Your task to perform on an android device: Open the stopwatch Image 0: 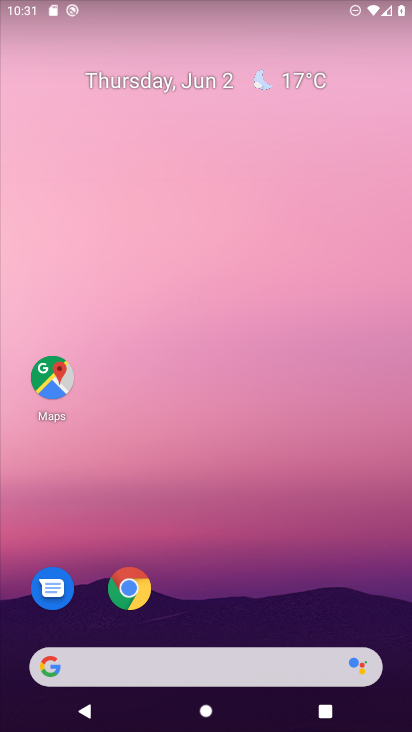
Step 0: drag from (231, 628) to (254, 433)
Your task to perform on an android device: Open the stopwatch Image 1: 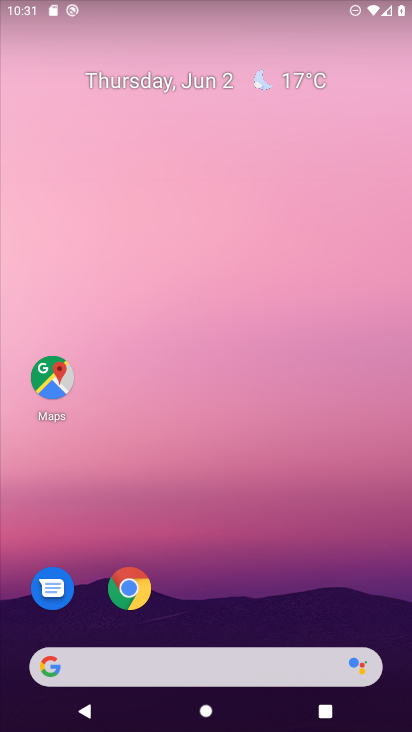
Step 1: drag from (266, 626) to (278, 321)
Your task to perform on an android device: Open the stopwatch Image 2: 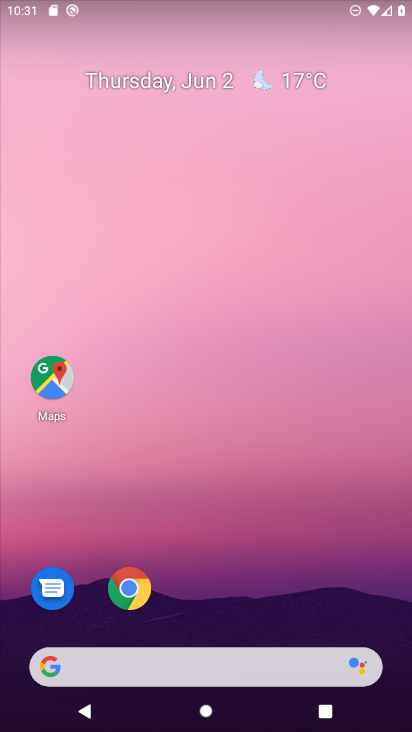
Step 2: drag from (221, 649) to (294, 33)
Your task to perform on an android device: Open the stopwatch Image 3: 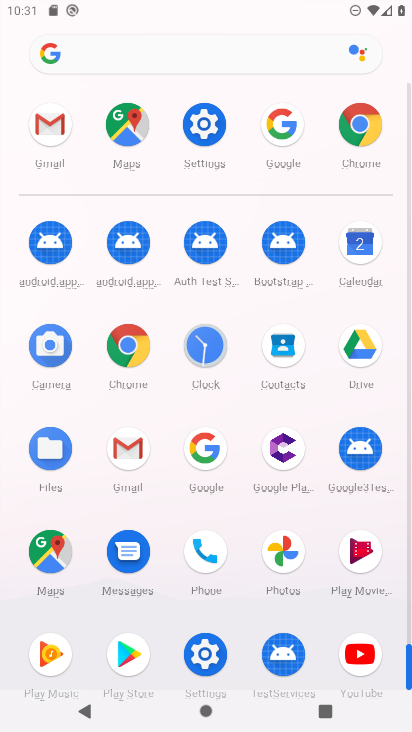
Step 3: click (207, 350)
Your task to perform on an android device: Open the stopwatch Image 4: 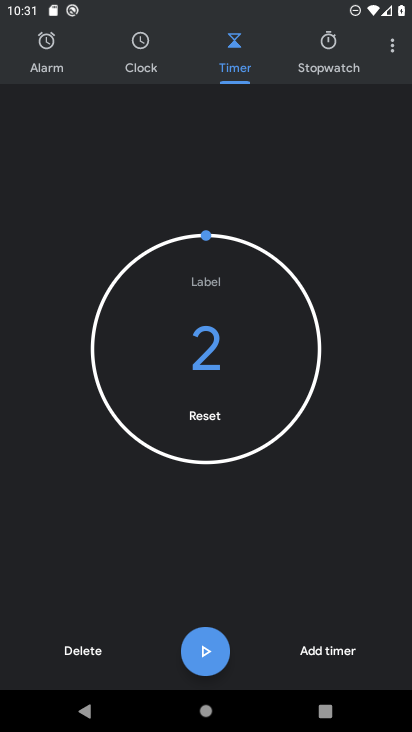
Step 4: click (325, 76)
Your task to perform on an android device: Open the stopwatch Image 5: 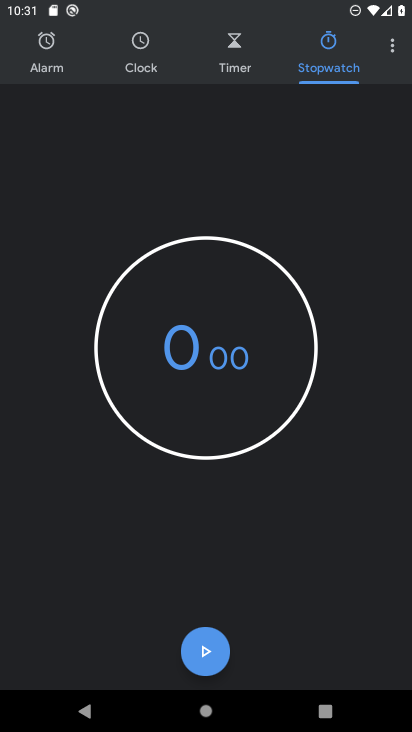
Step 5: click (216, 658)
Your task to perform on an android device: Open the stopwatch Image 6: 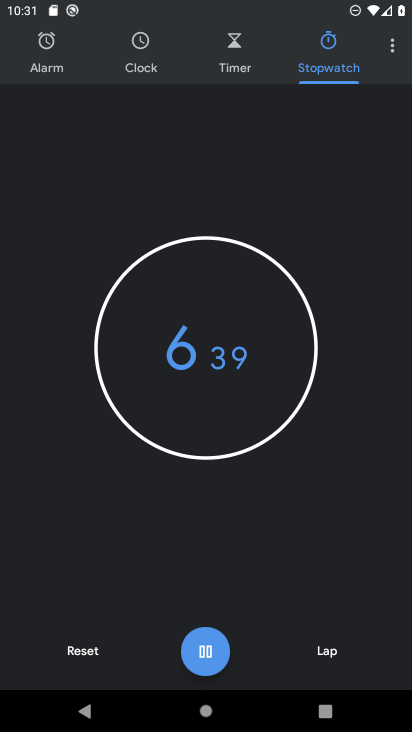
Step 6: task complete